Your task to perform on an android device: change the clock style Image 0: 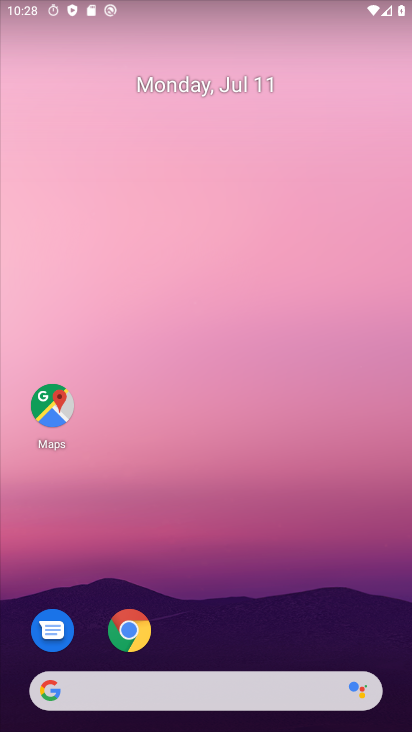
Step 0: drag from (222, 690) to (407, 53)
Your task to perform on an android device: change the clock style Image 1: 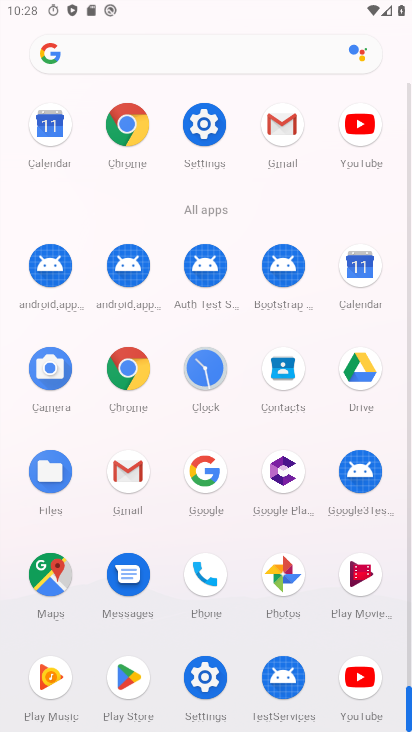
Step 1: click (210, 372)
Your task to perform on an android device: change the clock style Image 2: 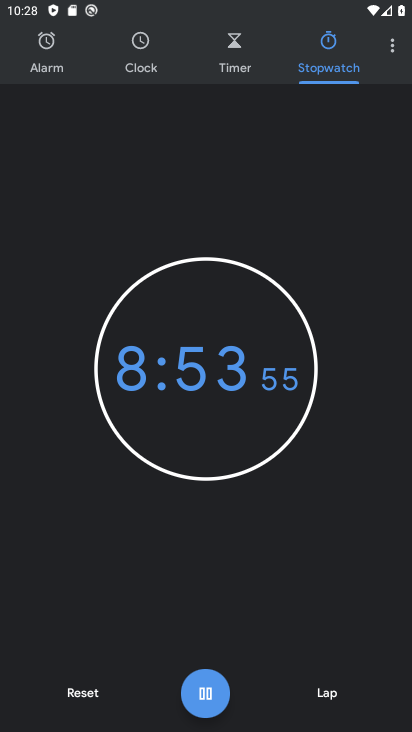
Step 2: click (397, 54)
Your task to perform on an android device: change the clock style Image 3: 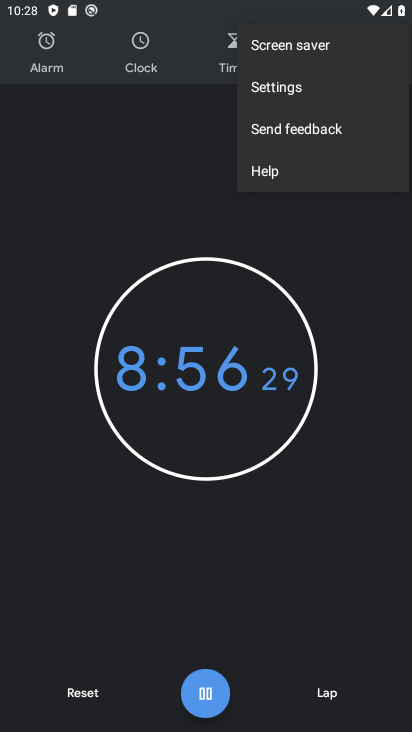
Step 3: click (290, 93)
Your task to perform on an android device: change the clock style Image 4: 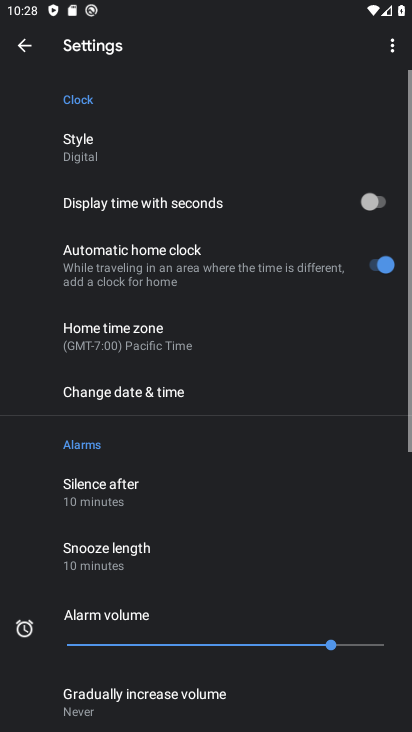
Step 4: click (130, 150)
Your task to perform on an android device: change the clock style Image 5: 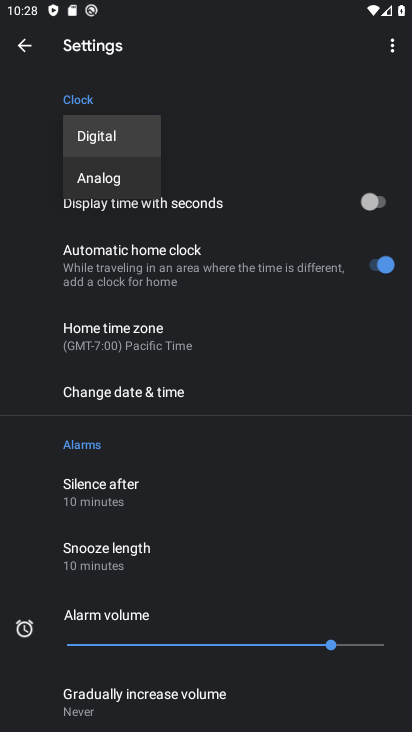
Step 5: click (111, 170)
Your task to perform on an android device: change the clock style Image 6: 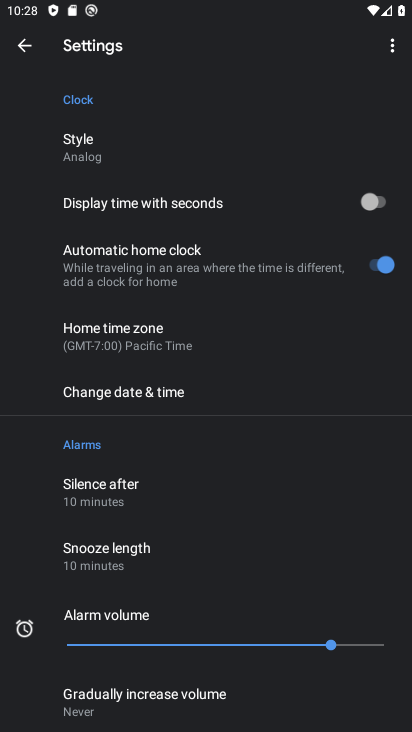
Step 6: task complete